Your task to perform on an android device: Open calendar and show me the fourth week of next month Image 0: 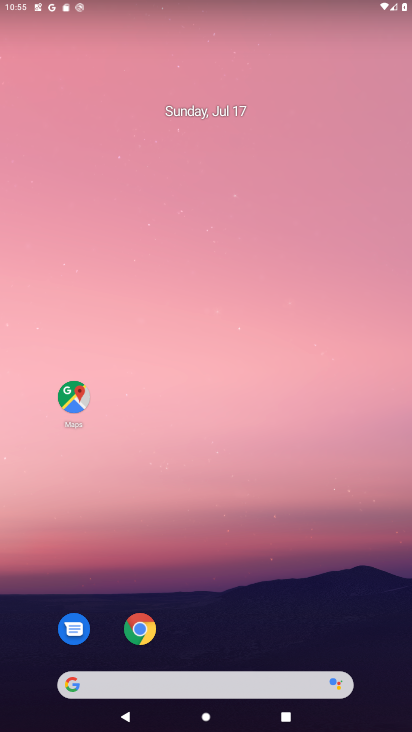
Step 0: drag from (218, 682) to (261, 187)
Your task to perform on an android device: Open calendar and show me the fourth week of next month Image 1: 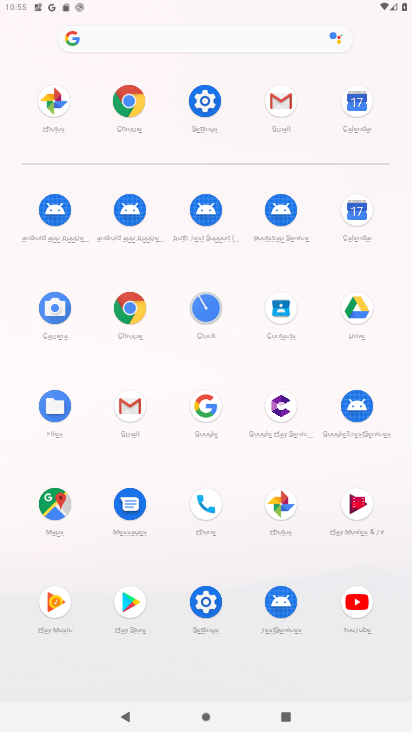
Step 1: click (357, 209)
Your task to perform on an android device: Open calendar and show me the fourth week of next month Image 2: 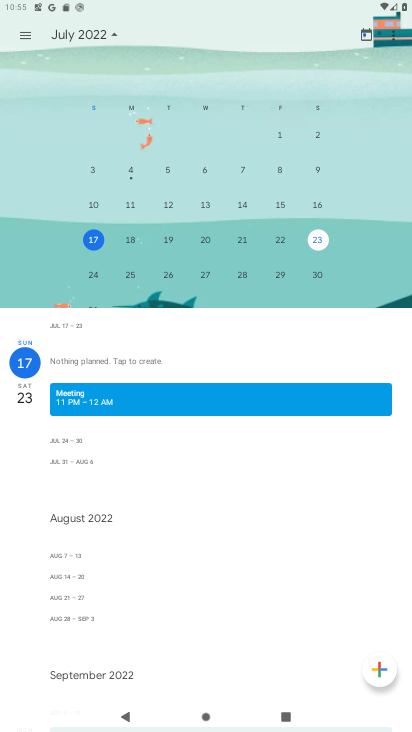
Step 2: click (366, 36)
Your task to perform on an android device: Open calendar and show me the fourth week of next month Image 3: 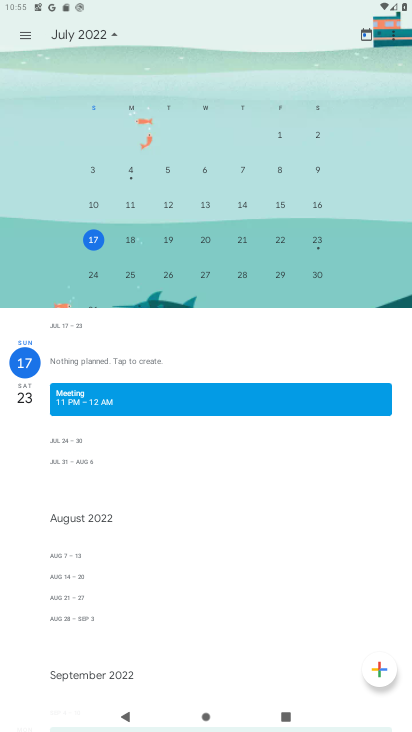
Step 3: click (112, 37)
Your task to perform on an android device: Open calendar and show me the fourth week of next month Image 4: 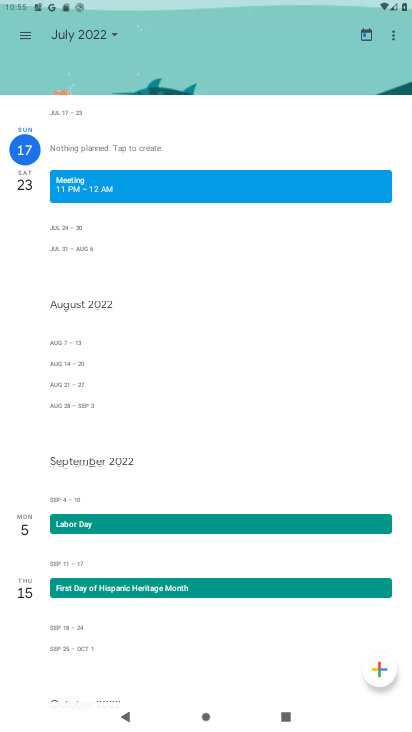
Step 4: click (112, 37)
Your task to perform on an android device: Open calendar and show me the fourth week of next month Image 5: 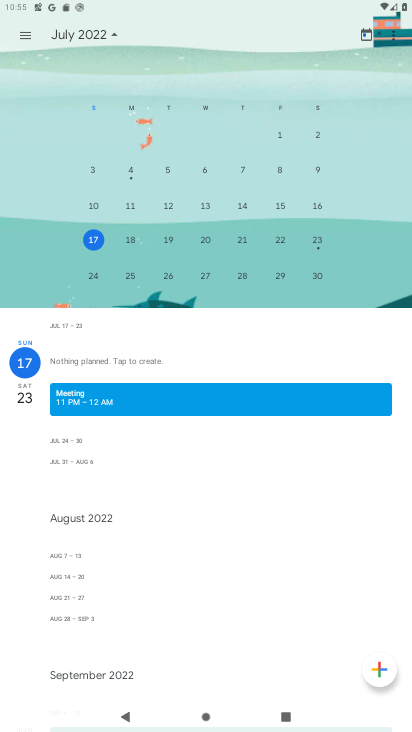
Step 5: drag from (351, 189) to (4, 192)
Your task to perform on an android device: Open calendar and show me the fourth week of next month Image 6: 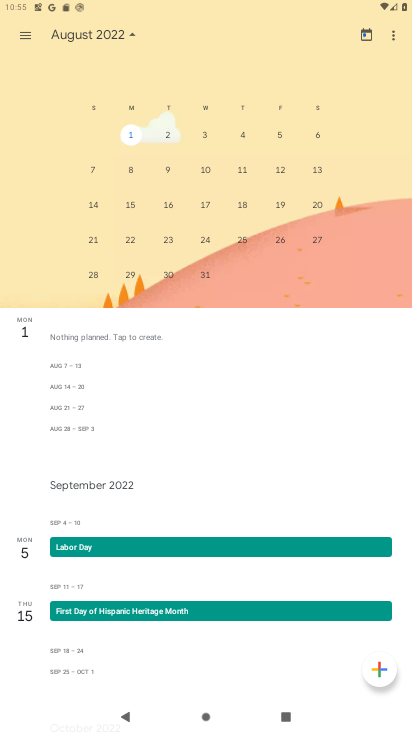
Step 6: click (132, 240)
Your task to perform on an android device: Open calendar and show me the fourth week of next month Image 7: 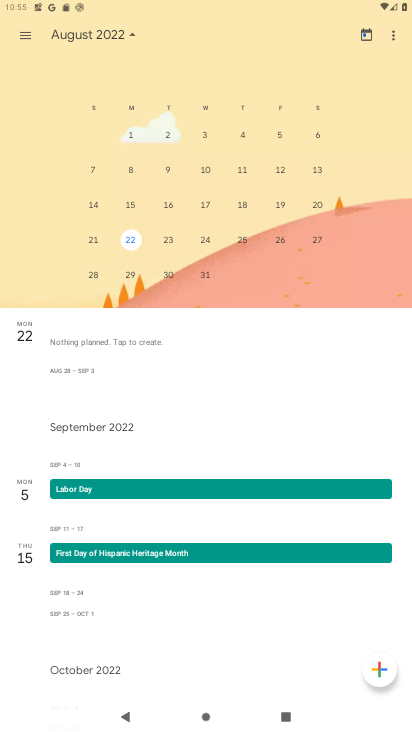
Step 7: click (25, 36)
Your task to perform on an android device: Open calendar and show me the fourth week of next month Image 8: 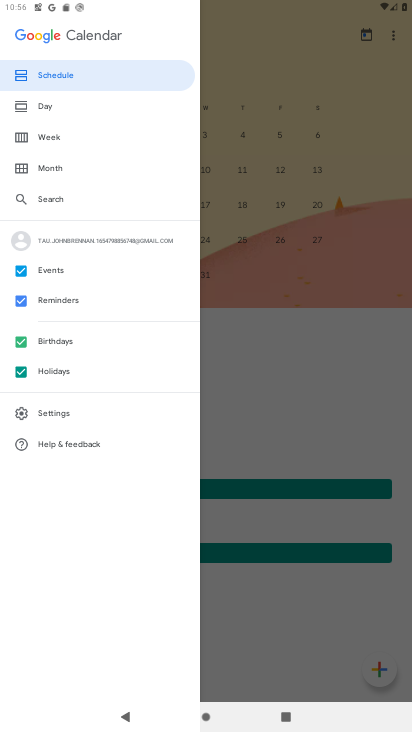
Step 8: click (59, 147)
Your task to perform on an android device: Open calendar and show me the fourth week of next month Image 9: 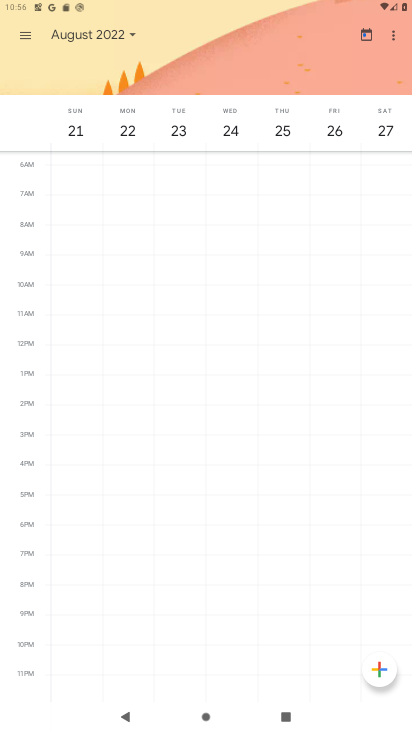
Step 9: task complete